Your task to perform on an android device: What's on my calendar tomorrow? Image 0: 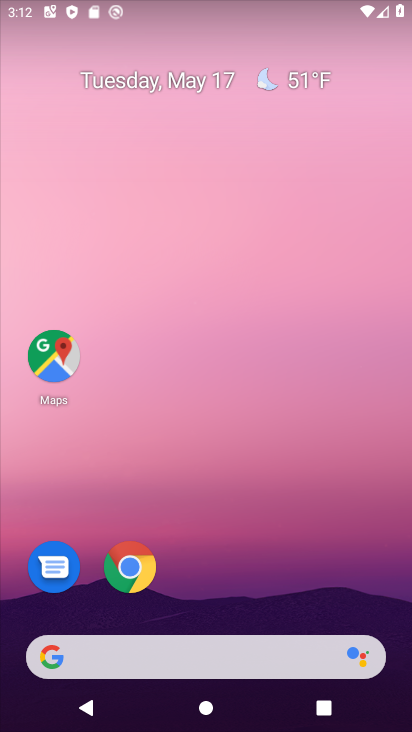
Step 0: drag from (259, 649) to (238, 349)
Your task to perform on an android device: What's on my calendar tomorrow? Image 1: 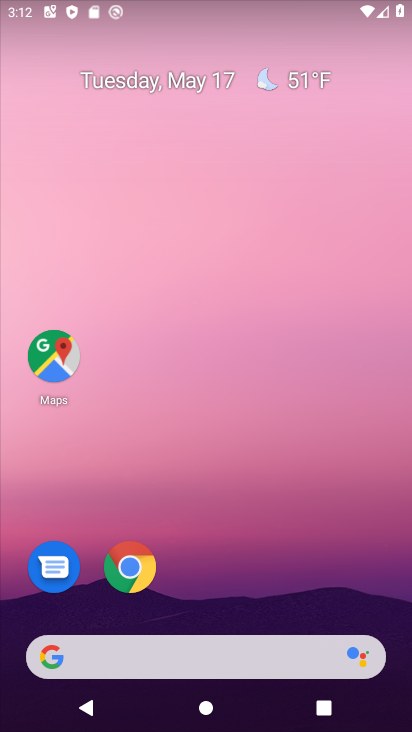
Step 1: drag from (199, 651) to (187, 294)
Your task to perform on an android device: What's on my calendar tomorrow? Image 2: 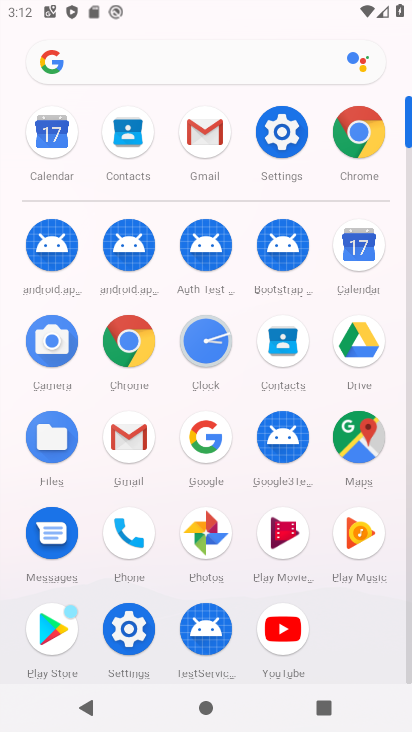
Step 2: click (343, 271)
Your task to perform on an android device: What's on my calendar tomorrow? Image 3: 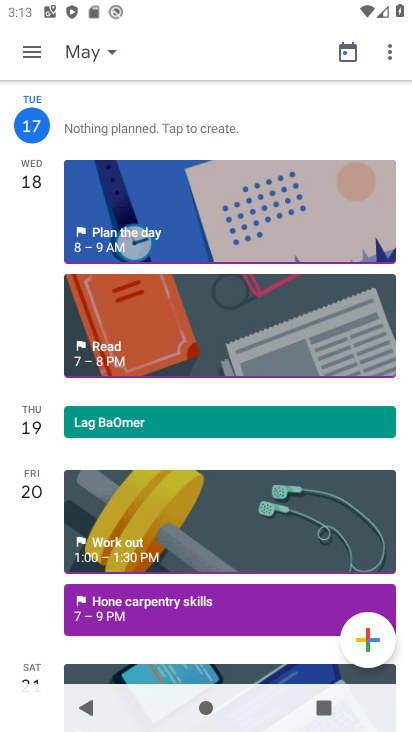
Step 3: task complete